Your task to perform on an android device: Open battery settings Image 0: 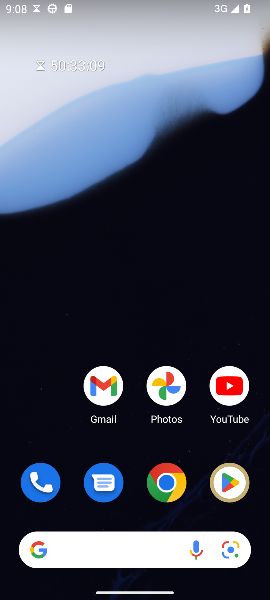
Step 0: drag from (92, 430) to (199, 32)
Your task to perform on an android device: Open battery settings Image 1: 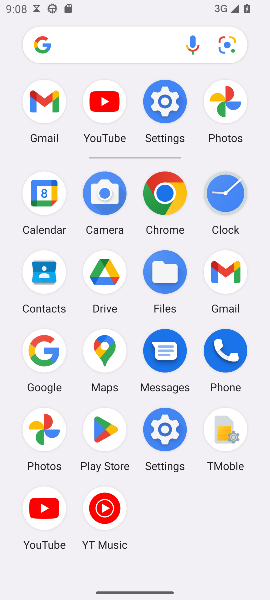
Step 1: click (181, 100)
Your task to perform on an android device: Open battery settings Image 2: 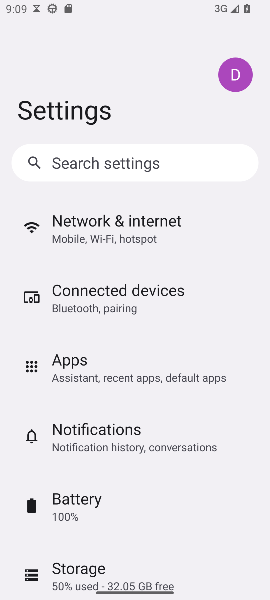
Step 2: click (88, 508)
Your task to perform on an android device: Open battery settings Image 3: 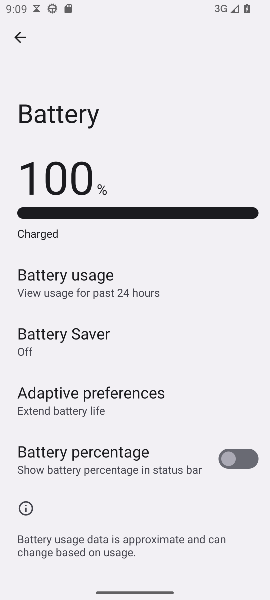
Step 3: task complete